Your task to perform on an android device: turn off picture-in-picture Image 0: 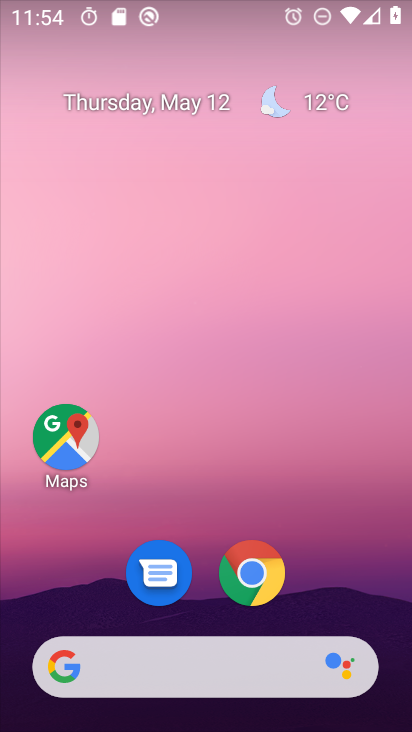
Step 0: drag from (399, 658) to (371, 254)
Your task to perform on an android device: turn off picture-in-picture Image 1: 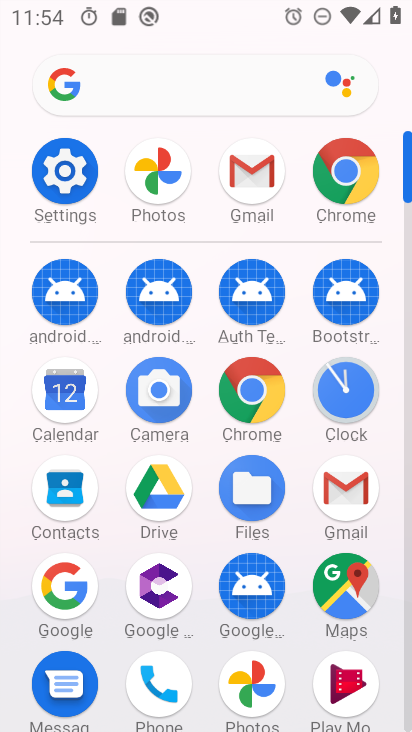
Step 1: click (353, 172)
Your task to perform on an android device: turn off picture-in-picture Image 2: 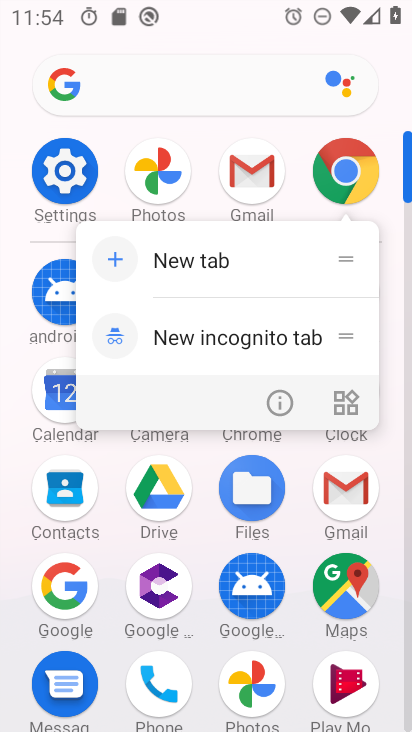
Step 2: click (279, 406)
Your task to perform on an android device: turn off picture-in-picture Image 3: 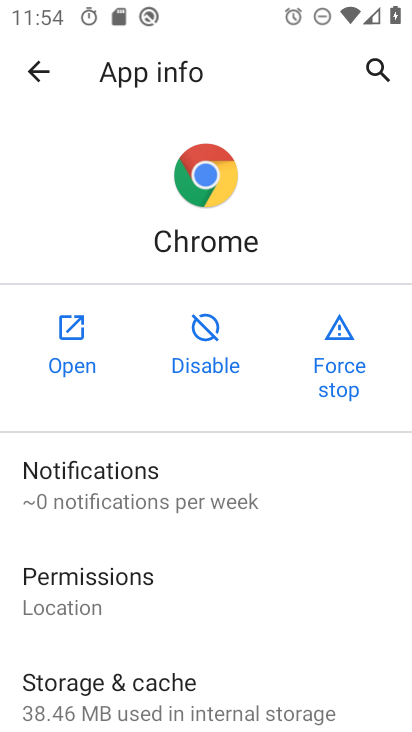
Step 3: drag from (274, 660) to (277, 363)
Your task to perform on an android device: turn off picture-in-picture Image 4: 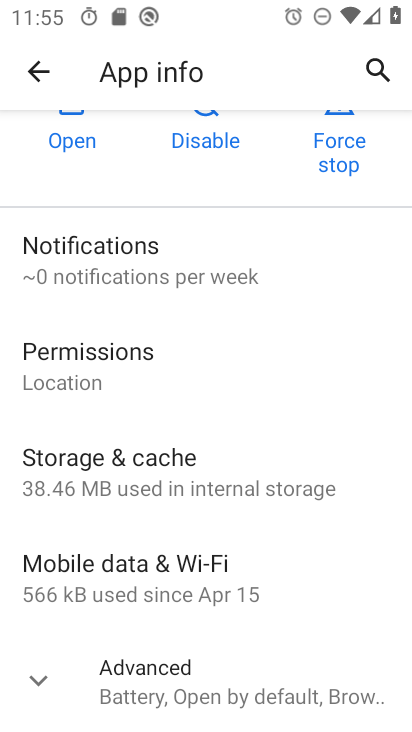
Step 4: drag from (338, 648) to (328, 434)
Your task to perform on an android device: turn off picture-in-picture Image 5: 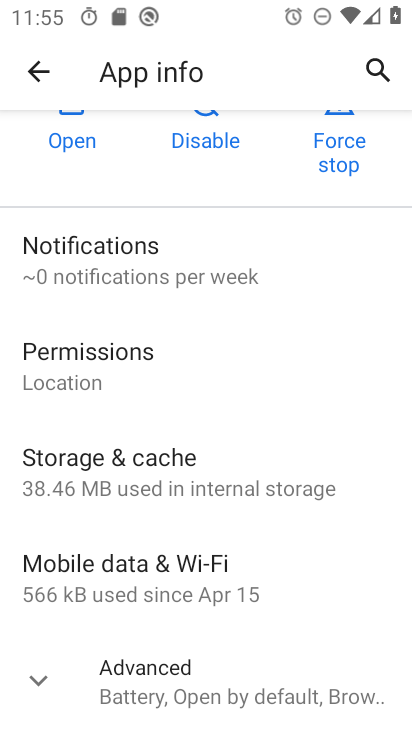
Step 5: click (47, 681)
Your task to perform on an android device: turn off picture-in-picture Image 6: 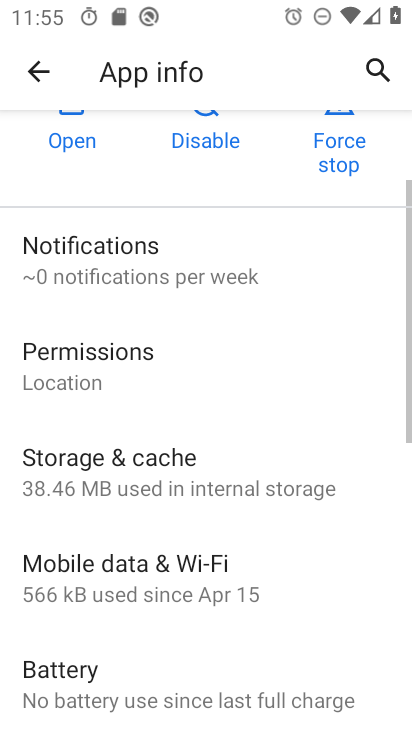
Step 6: drag from (323, 666) to (322, 335)
Your task to perform on an android device: turn off picture-in-picture Image 7: 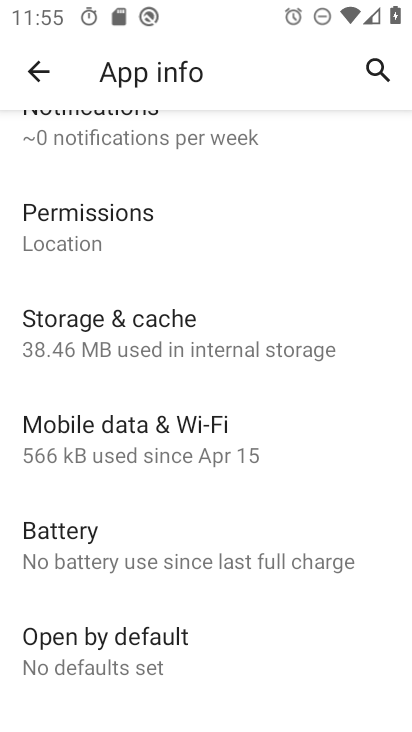
Step 7: drag from (320, 680) to (307, 440)
Your task to perform on an android device: turn off picture-in-picture Image 8: 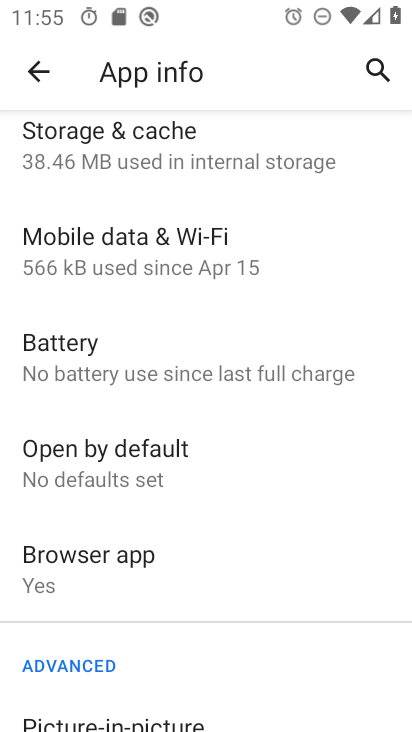
Step 8: drag from (265, 679) to (269, 482)
Your task to perform on an android device: turn off picture-in-picture Image 9: 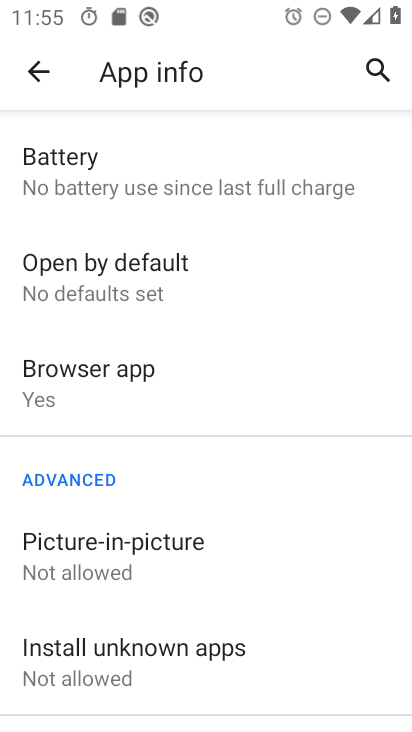
Step 9: click (90, 548)
Your task to perform on an android device: turn off picture-in-picture Image 10: 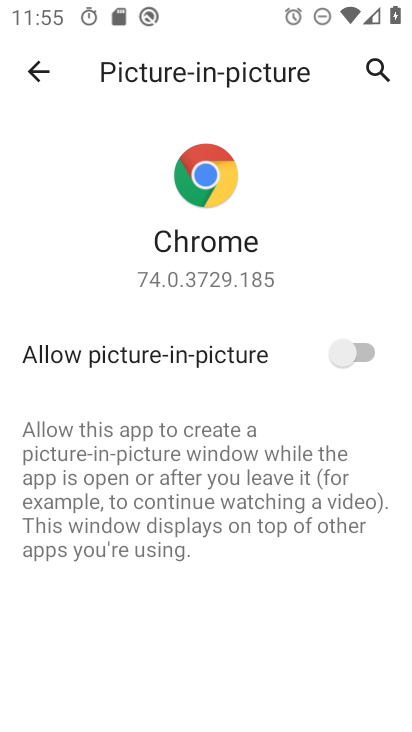
Step 10: task complete